Your task to perform on an android device: turn off notifications in google photos Image 0: 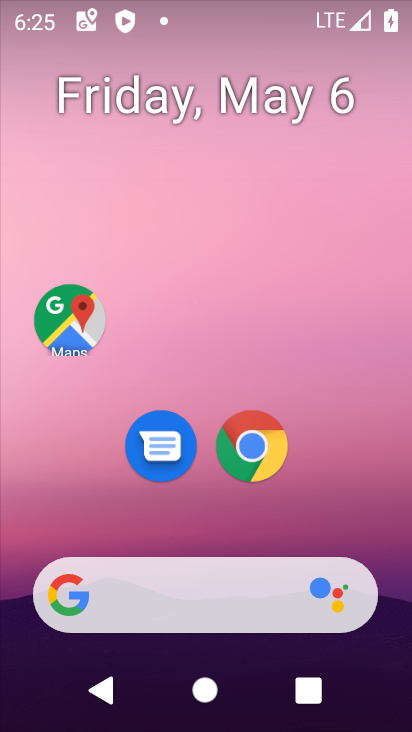
Step 0: drag from (302, 527) to (292, 151)
Your task to perform on an android device: turn off notifications in google photos Image 1: 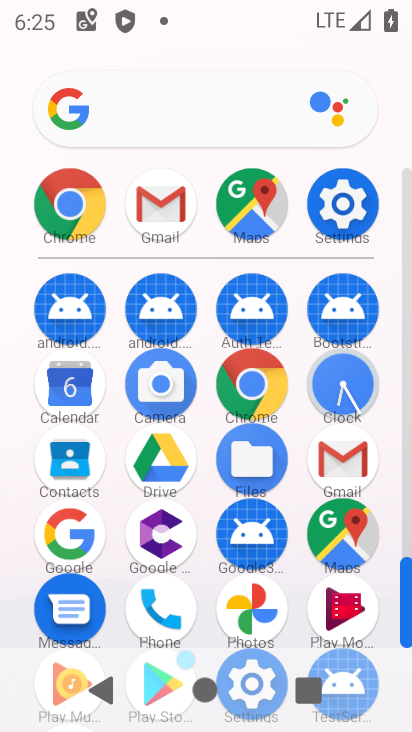
Step 1: click (346, 223)
Your task to perform on an android device: turn off notifications in google photos Image 2: 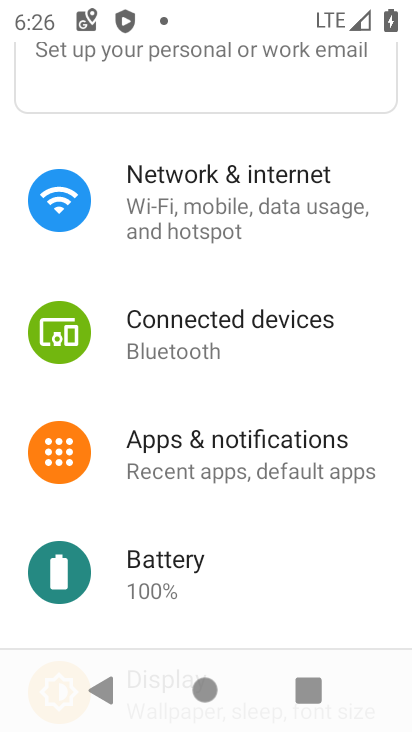
Step 2: press home button
Your task to perform on an android device: turn off notifications in google photos Image 3: 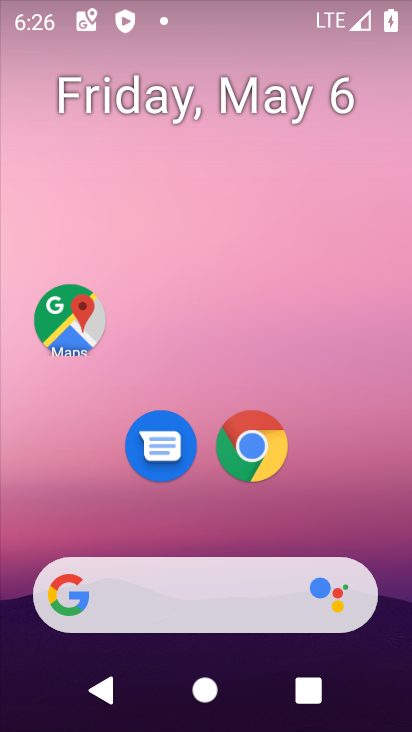
Step 3: drag from (335, 510) to (266, 174)
Your task to perform on an android device: turn off notifications in google photos Image 4: 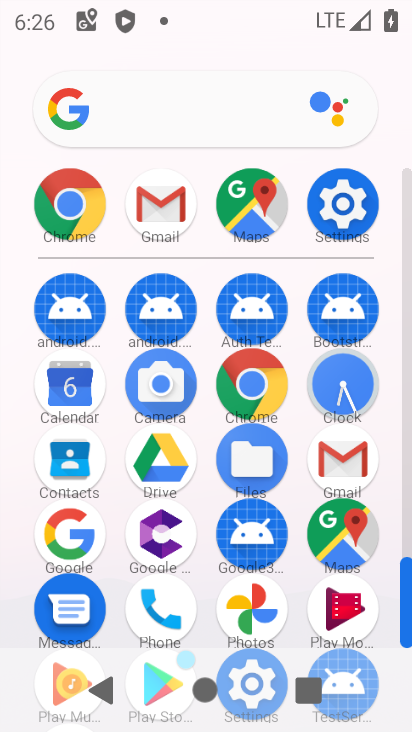
Step 4: click (258, 601)
Your task to perform on an android device: turn off notifications in google photos Image 5: 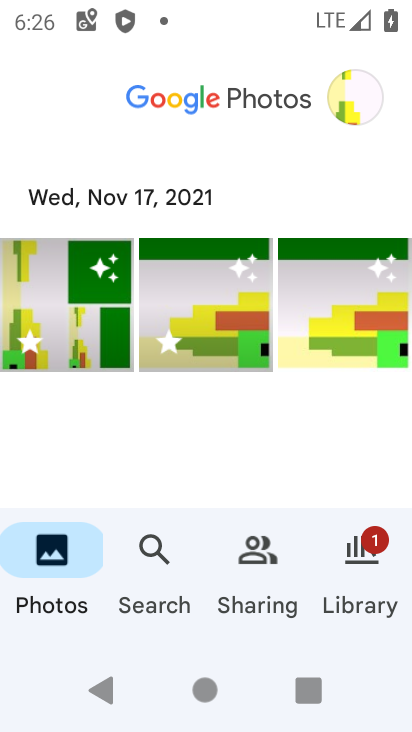
Step 5: press back button
Your task to perform on an android device: turn off notifications in google photos Image 6: 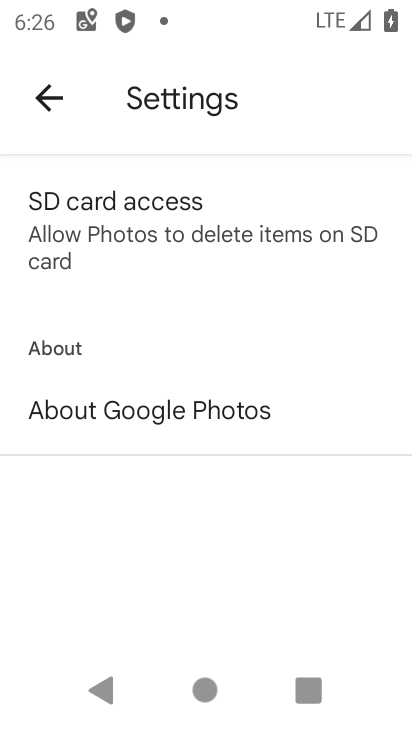
Step 6: click (39, 89)
Your task to perform on an android device: turn off notifications in google photos Image 7: 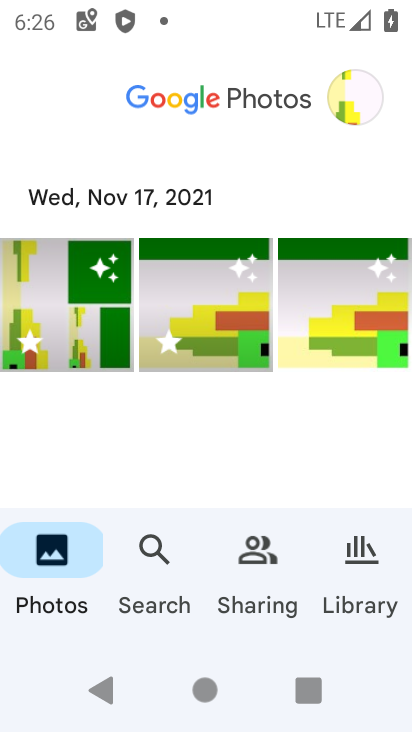
Step 7: click (351, 82)
Your task to perform on an android device: turn off notifications in google photos Image 8: 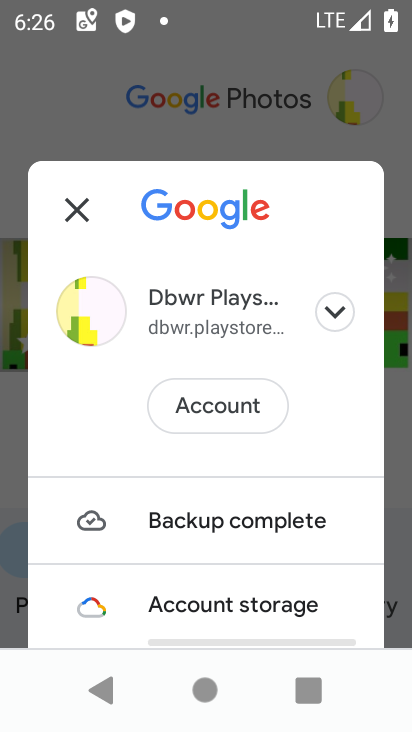
Step 8: drag from (234, 564) to (241, 294)
Your task to perform on an android device: turn off notifications in google photos Image 9: 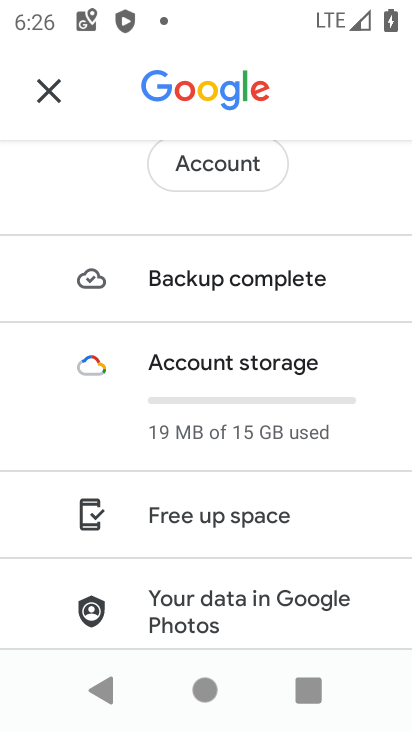
Step 9: drag from (220, 566) to (247, 293)
Your task to perform on an android device: turn off notifications in google photos Image 10: 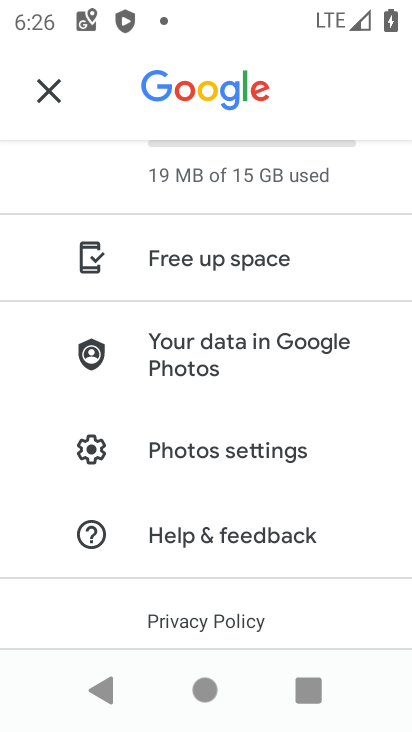
Step 10: drag from (229, 605) to (282, 329)
Your task to perform on an android device: turn off notifications in google photos Image 11: 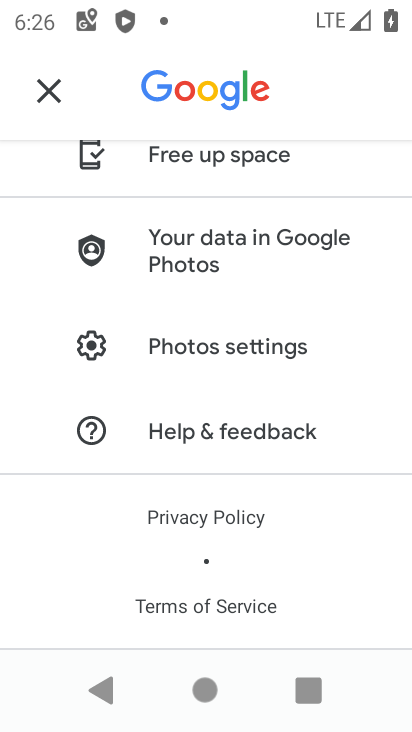
Step 11: click (198, 357)
Your task to perform on an android device: turn off notifications in google photos Image 12: 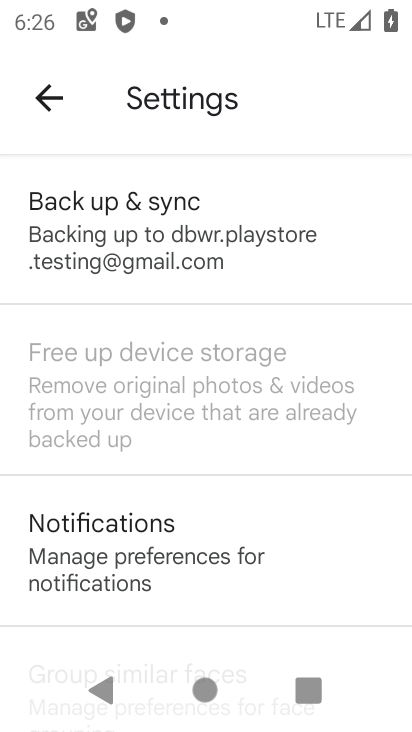
Step 12: click (139, 564)
Your task to perform on an android device: turn off notifications in google photos Image 13: 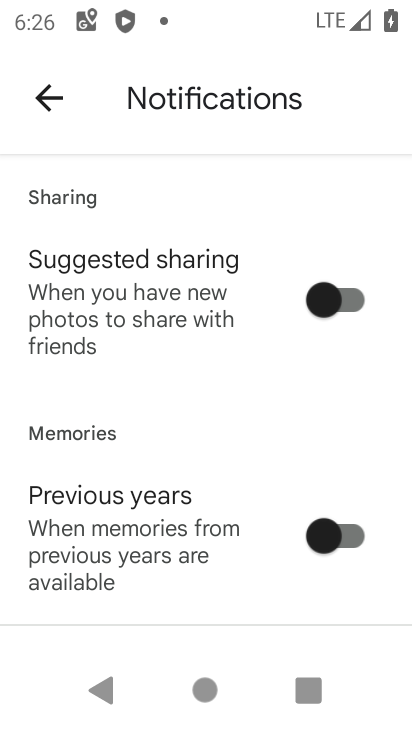
Step 13: task complete